Your task to perform on an android device: View the shopping cart on bestbuy.com. Search for "razer blade" on bestbuy.com, select the first entry, and add it to the cart. Image 0: 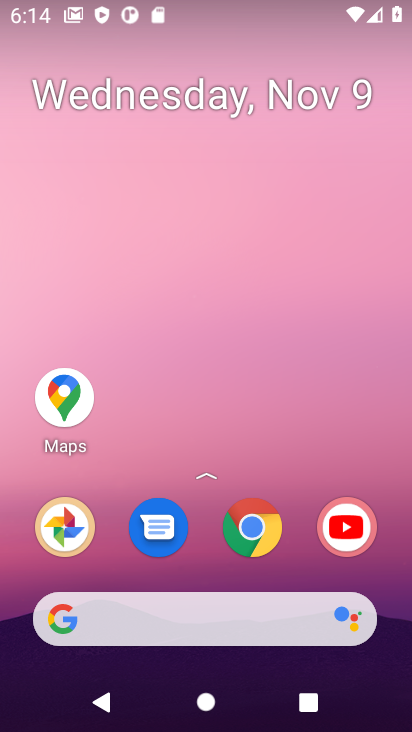
Step 0: click (262, 525)
Your task to perform on an android device: View the shopping cart on bestbuy.com. Search for "razer blade" on bestbuy.com, select the first entry, and add it to the cart. Image 1: 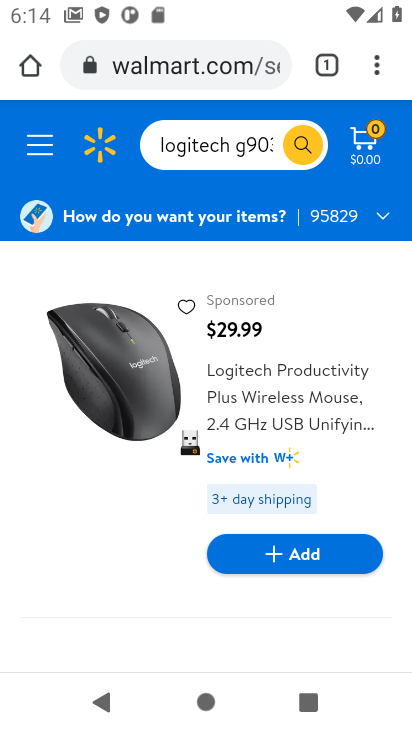
Step 1: click (166, 67)
Your task to perform on an android device: View the shopping cart on bestbuy.com. Search for "razer blade" on bestbuy.com, select the first entry, and add it to the cart. Image 2: 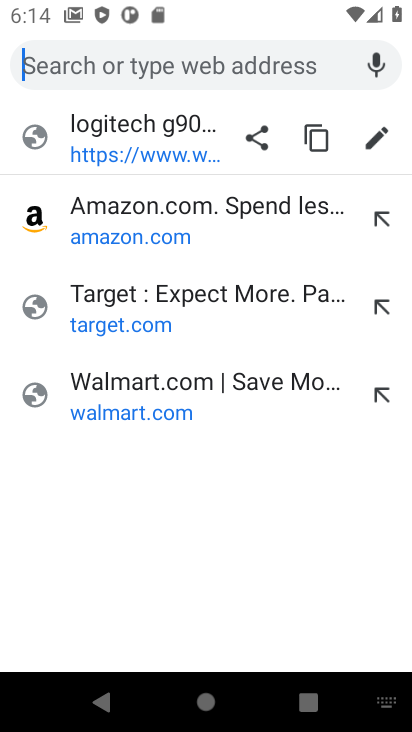
Step 2: type "bestbuy.com"
Your task to perform on an android device: View the shopping cart on bestbuy.com. Search for "razer blade" on bestbuy.com, select the first entry, and add it to the cart. Image 3: 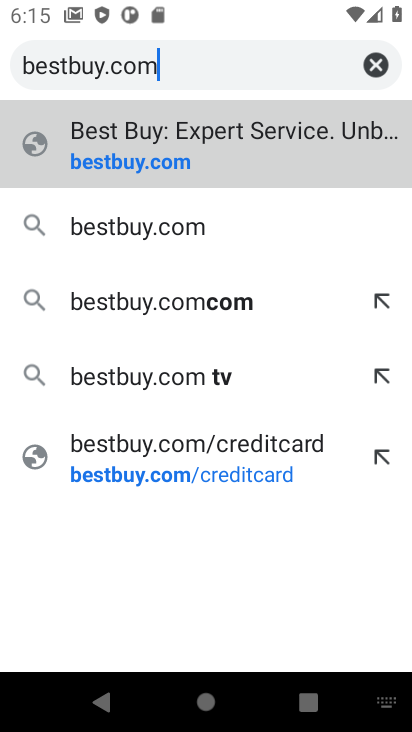
Step 3: click (122, 174)
Your task to perform on an android device: View the shopping cart on bestbuy.com. Search for "razer blade" on bestbuy.com, select the first entry, and add it to the cart. Image 4: 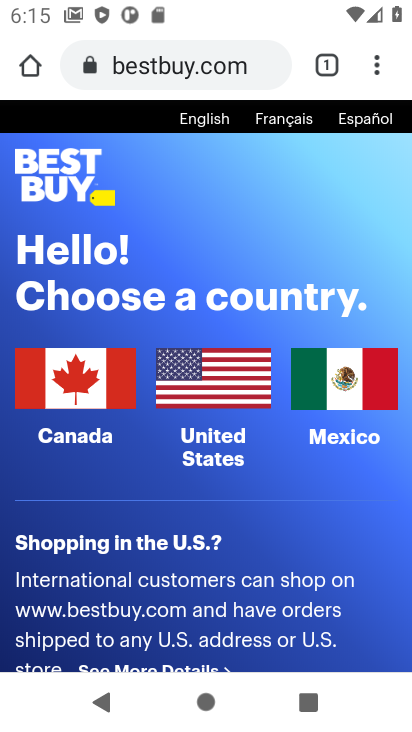
Step 4: click (214, 380)
Your task to perform on an android device: View the shopping cart on bestbuy.com. Search for "razer blade" on bestbuy.com, select the first entry, and add it to the cart. Image 5: 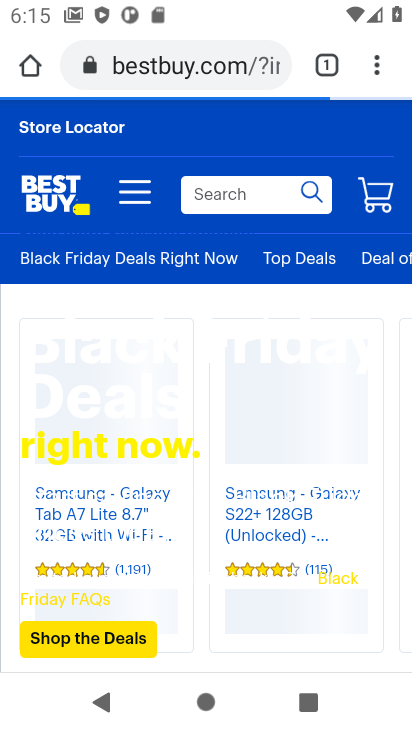
Step 5: click (377, 200)
Your task to perform on an android device: View the shopping cart on bestbuy.com. Search for "razer blade" on bestbuy.com, select the first entry, and add it to the cart. Image 6: 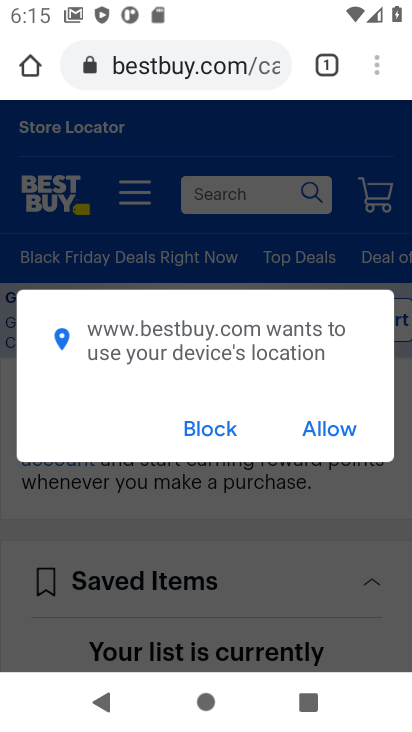
Step 6: click (201, 432)
Your task to perform on an android device: View the shopping cart on bestbuy.com. Search for "razer blade" on bestbuy.com, select the first entry, and add it to the cart. Image 7: 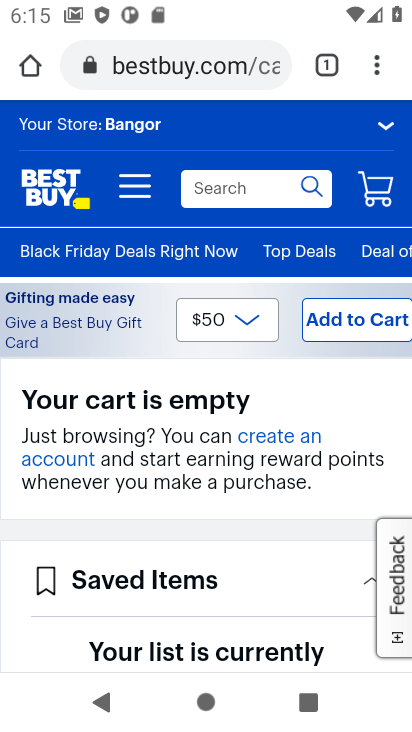
Step 7: click (246, 193)
Your task to perform on an android device: View the shopping cart on bestbuy.com. Search for "razer blade" on bestbuy.com, select the first entry, and add it to the cart. Image 8: 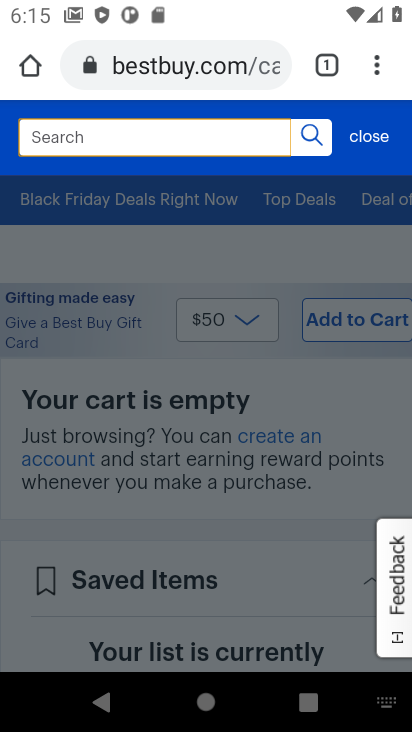
Step 8: type "razer blade"
Your task to perform on an android device: View the shopping cart on bestbuy.com. Search for "razer blade" on bestbuy.com, select the first entry, and add it to the cart. Image 9: 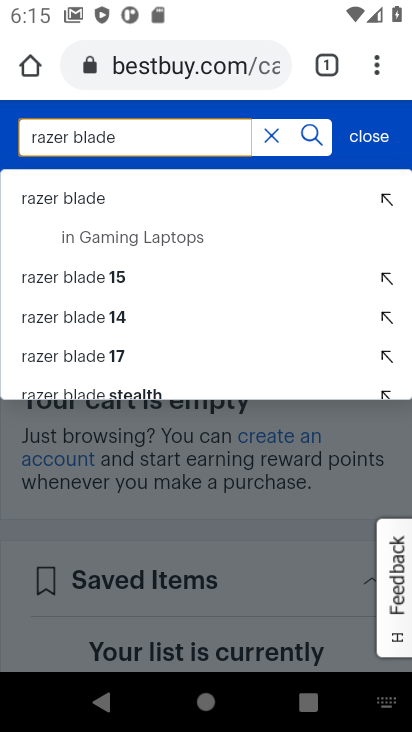
Step 9: click (55, 207)
Your task to perform on an android device: View the shopping cart on bestbuy.com. Search for "razer blade" on bestbuy.com, select the first entry, and add it to the cart. Image 10: 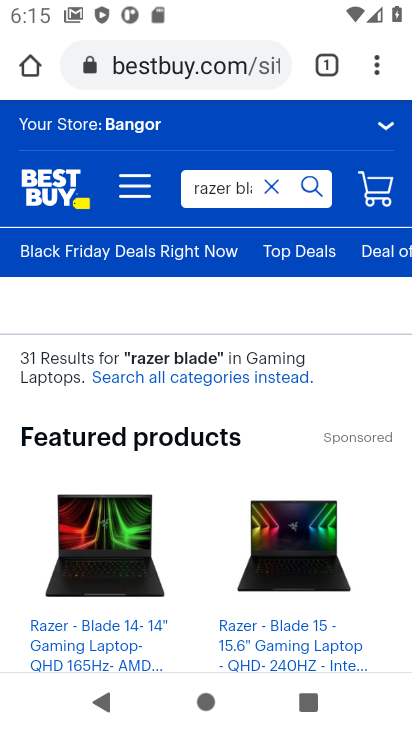
Step 10: drag from (196, 599) to (184, 421)
Your task to perform on an android device: View the shopping cart on bestbuy.com. Search for "razer blade" on bestbuy.com, select the first entry, and add it to the cart. Image 11: 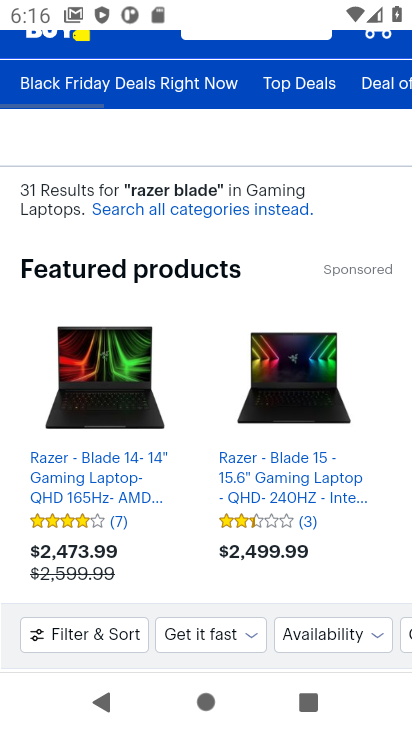
Step 11: drag from (212, 519) to (185, 272)
Your task to perform on an android device: View the shopping cart on bestbuy.com. Search for "razer blade" on bestbuy.com, select the first entry, and add it to the cart. Image 12: 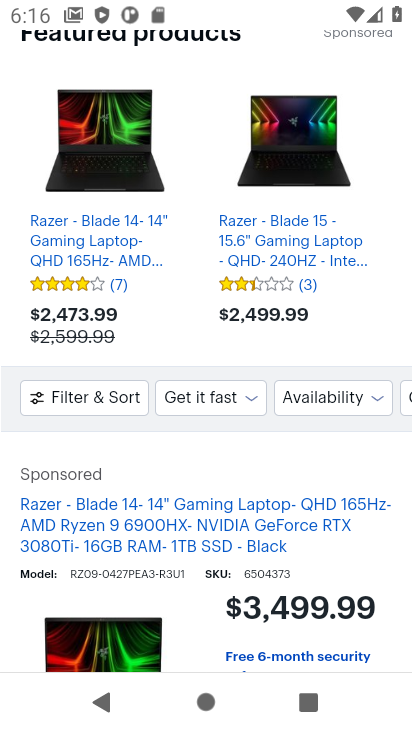
Step 12: drag from (173, 531) to (152, 329)
Your task to perform on an android device: View the shopping cart on bestbuy.com. Search for "razer blade" on bestbuy.com, select the first entry, and add it to the cart. Image 13: 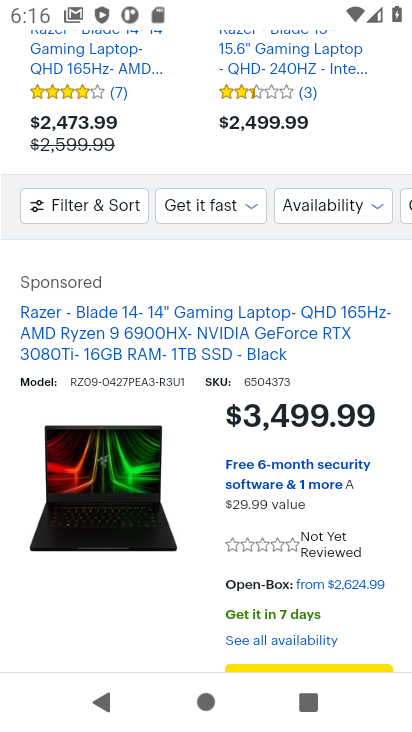
Step 13: drag from (259, 586) to (237, 472)
Your task to perform on an android device: View the shopping cart on bestbuy.com. Search for "razer blade" on bestbuy.com, select the first entry, and add it to the cart. Image 14: 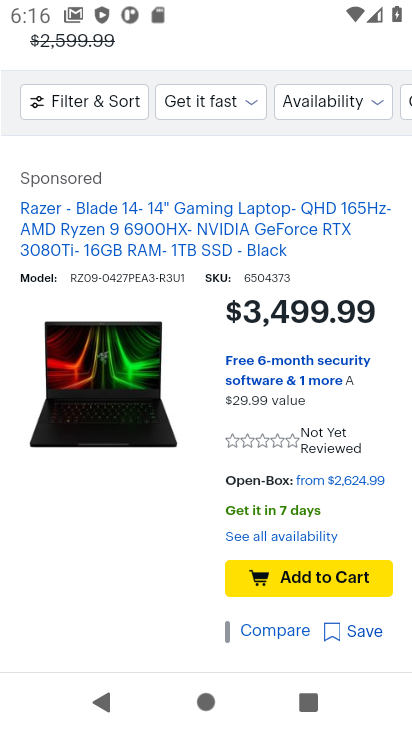
Step 14: click (308, 577)
Your task to perform on an android device: View the shopping cart on bestbuy.com. Search for "razer blade" on bestbuy.com, select the first entry, and add it to the cart. Image 15: 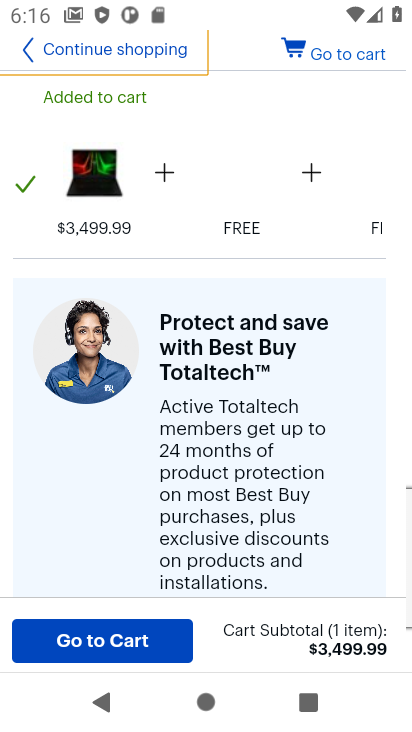
Step 15: task complete